Your task to perform on an android device: Open Youtube and go to "Your channel" Image 0: 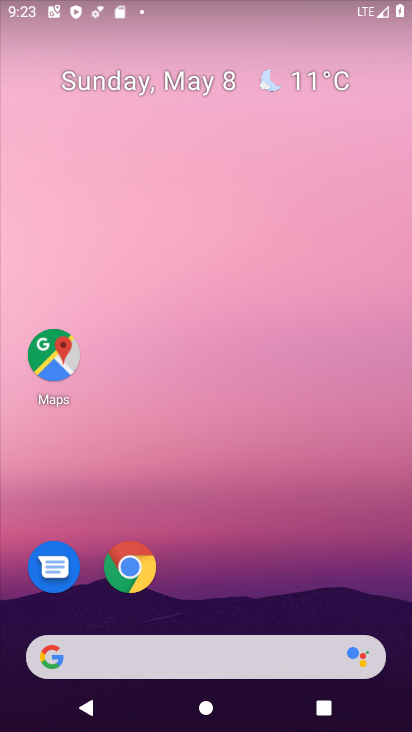
Step 0: drag from (238, 533) to (323, 141)
Your task to perform on an android device: Open Youtube and go to "Your channel" Image 1: 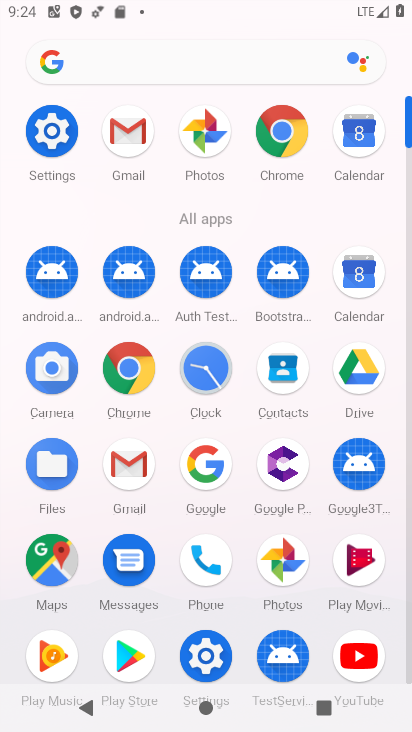
Step 1: click (361, 666)
Your task to perform on an android device: Open Youtube and go to "Your channel" Image 2: 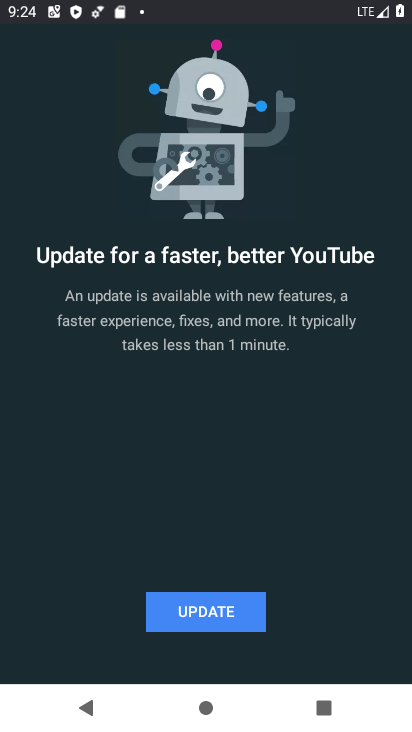
Step 2: press back button
Your task to perform on an android device: Open Youtube and go to "Your channel" Image 3: 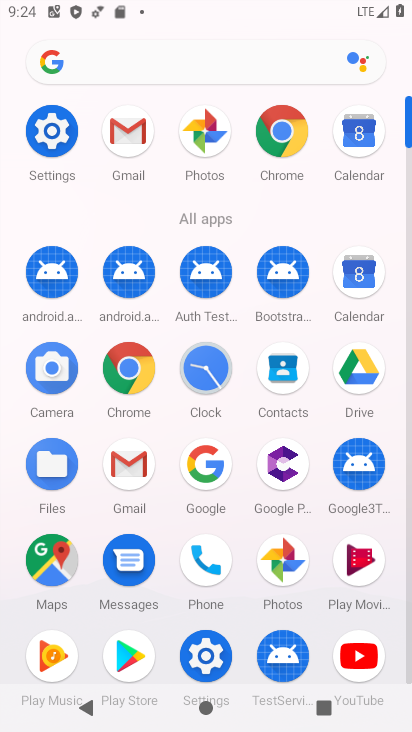
Step 3: click (353, 650)
Your task to perform on an android device: Open Youtube and go to "Your channel" Image 4: 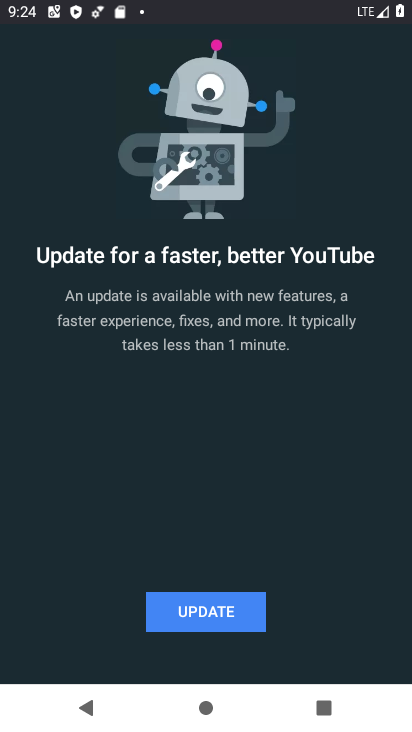
Step 4: click (208, 602)
Your task to perform on an android device: Open Youtube and go to "Your channel" Image 5: 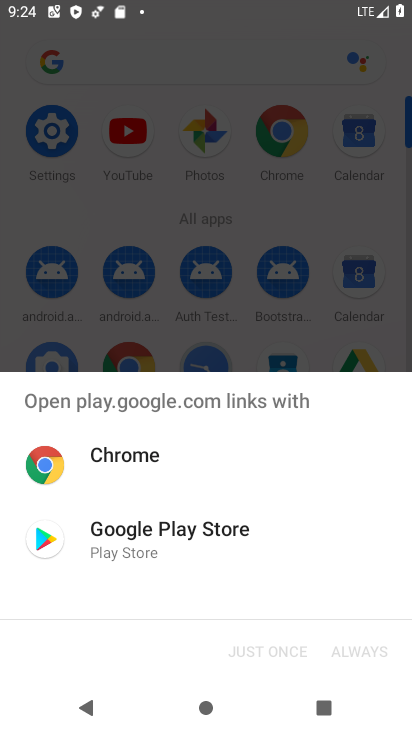
Step 5: click (157, 565)
Your task to perform on an android device: Open Youtube and go to "Your channel" Image 6: 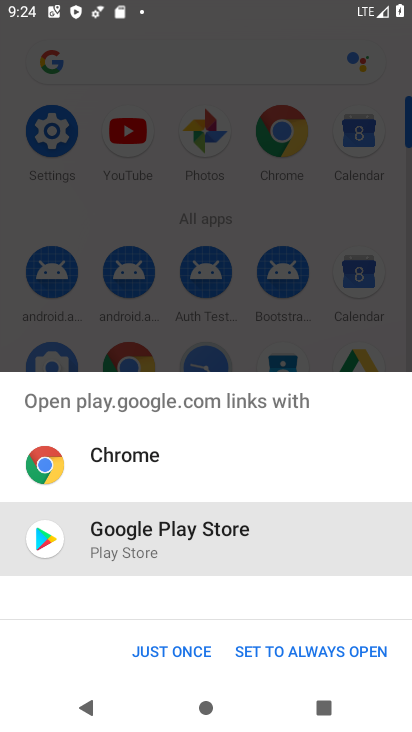
Step 6: click (167, 638)
Your task to perform on an android device: Open Youtube and go to "Your channel" Image 7: 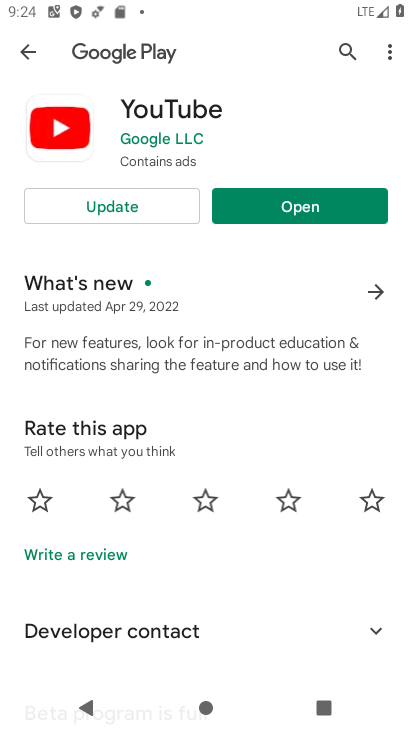
Step 7: click (124, 207)
Your task to perform on an android device: Open Youtube and go to "Your channel" Image 8: 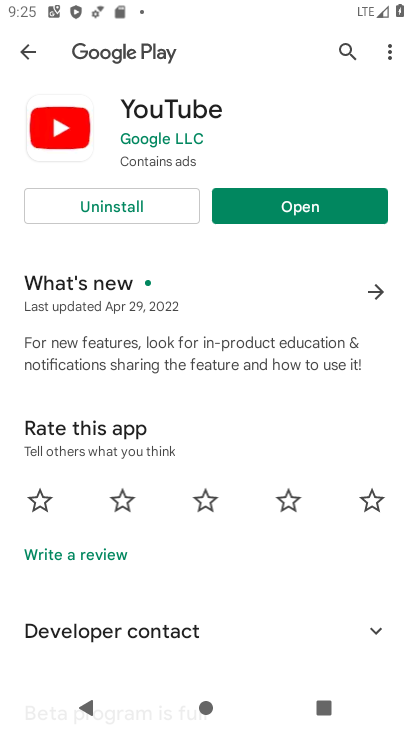
Step 8: click (291, 201)
Your task to perform on an android device: Open Youtube and go to "Your channel" Image 9: 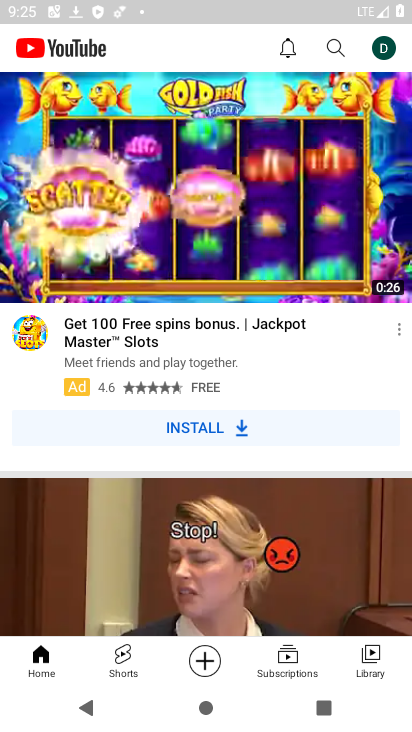
Step 9: click (384, 52)
Your task to perform on an android device: Open Youtube and go to "Your channel" Image 10: 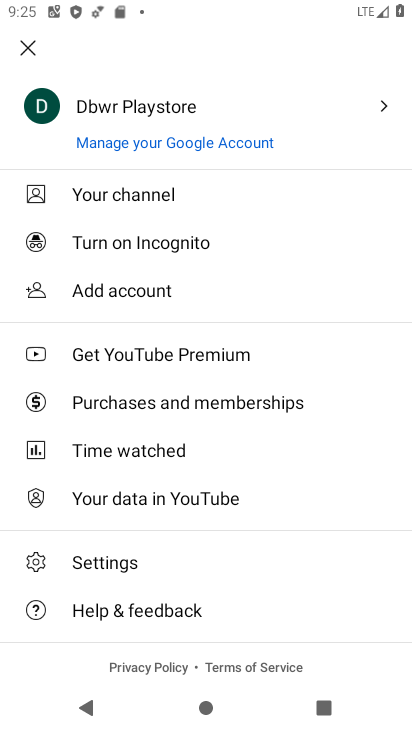
Step 10: click (141, 193)
Your task to perform on an android device: Open Youtube and go to "Your channel" Image 11: 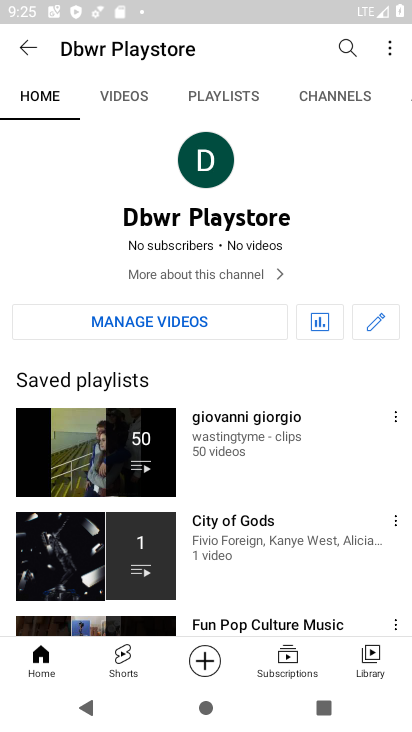
Step 11: task complete